Your task to perform on an android device: Open calendar and show me the fourth week of next month Image 0: 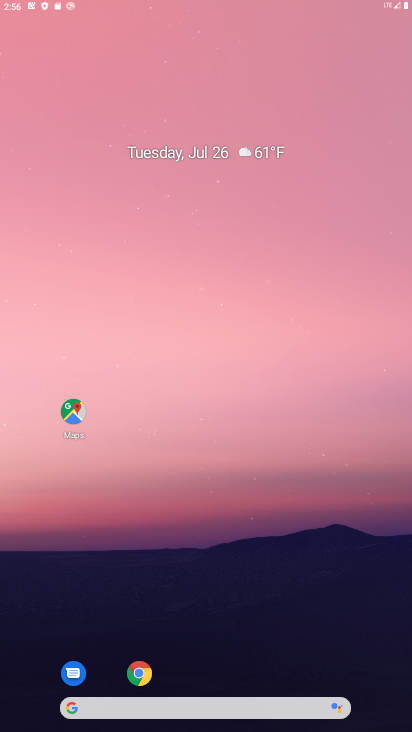
Step 0: click (230, 58)
Your task to perform on an android device: Open calendar and show me the fourth week of next month Image 1: 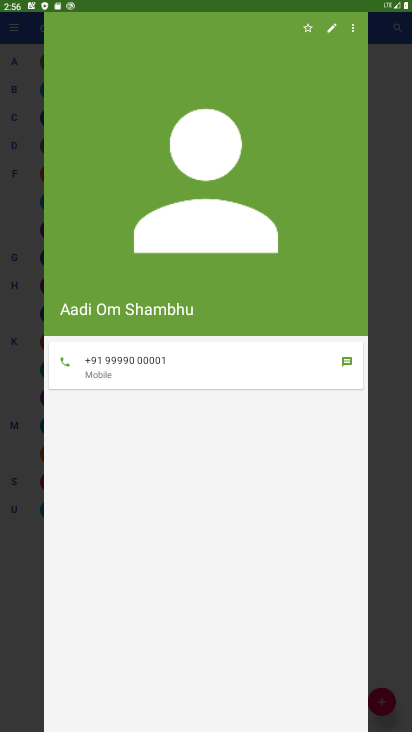
Step 1: press home button
Your task to perform on an android device: Open calendar and show me the fourth week of next month Image 2: 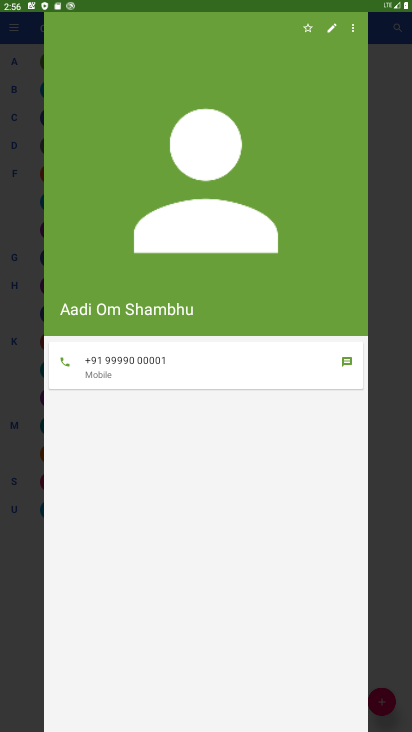
Step 2: press home button
Your task to perform on an android device: Open calendar and show me the fourth week of next month Image 3: 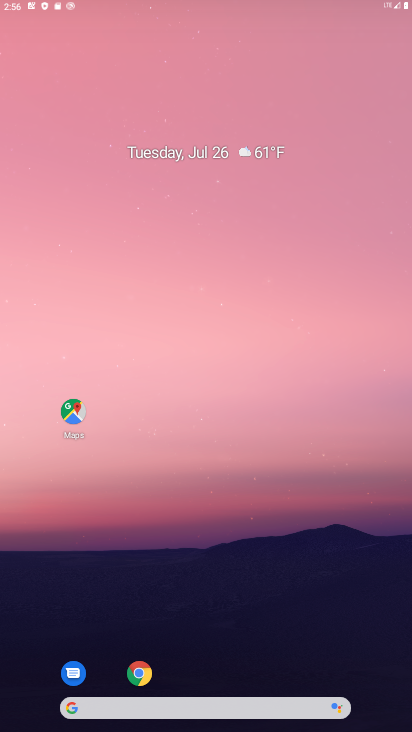
Step 3: drag from (187, 651) to (176, 139)
Your task to perform on an android device: Open calendar and show me the fourth week of next month Image 4: 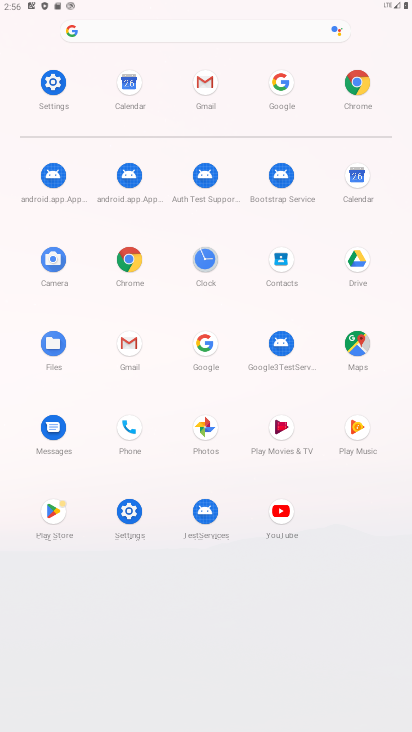
Step 4: click (354, 171)
Your task to perform on an android device: Open calendar and show me the fourth week of next month Image 5: 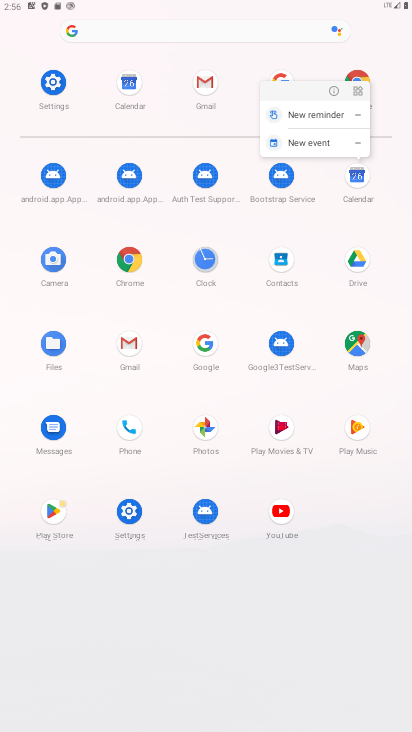
Step 5: click (335, 93)
Your task to perform on an android device: Open calendar and show me the fourth week of next month Image 6: 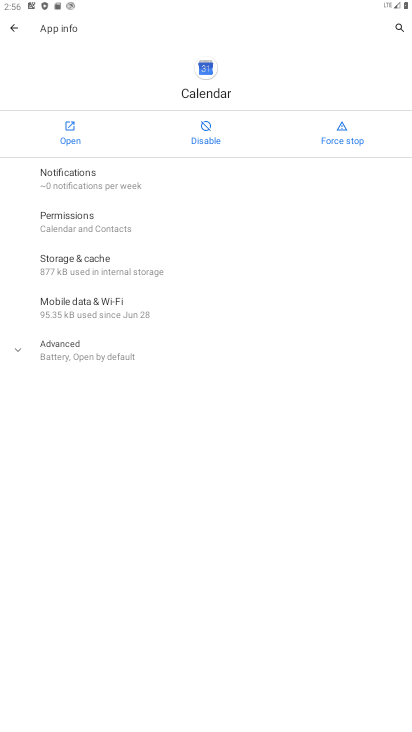
Step 6: click (73, 140)
Your task to perform on an android device: Open calendar and show me the fourth week of next month Image 7: 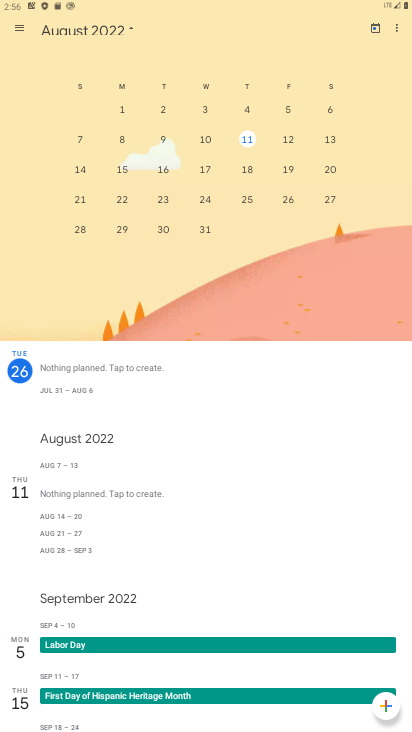
Step 7: drag from (80, 175) to (410, 169)
Your task to perform on an android device: Open calendar and show me the fourth week of next month Image 8: 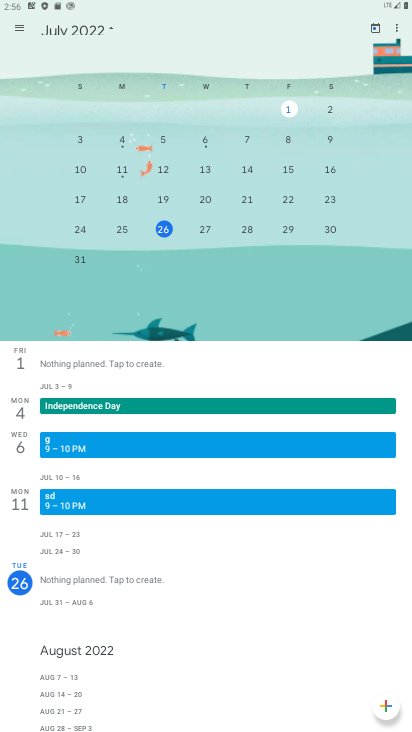
Step 8: drag from (332, 197) to (6, 258)
Your task to perform on an android device: Open calendar and show me the fourth week of next month Image 9: 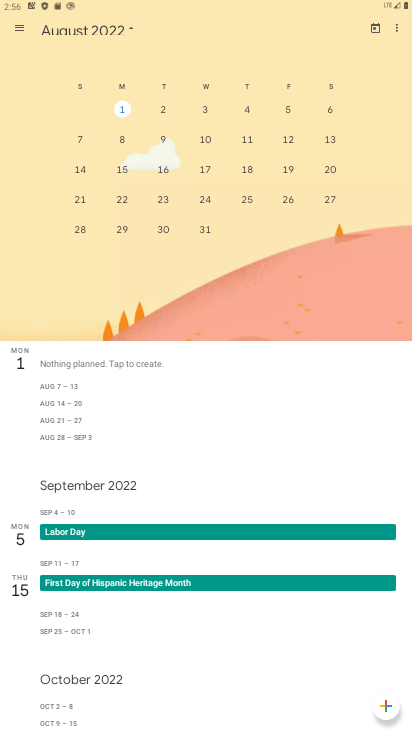
Step 9: click (253, 202)
Your task to perform on an android device: Open calendar and show me the fourth week of next month Image 10: 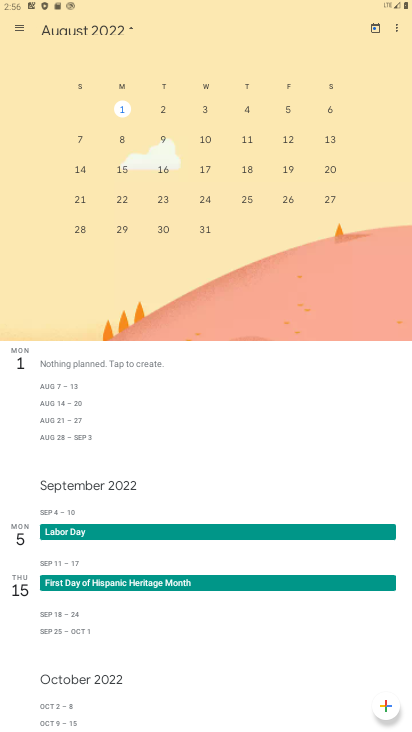
Step 10: click (245, 199)
Your task to perform on an android device: Open calendar and show me the fourth week of next month Image 11: 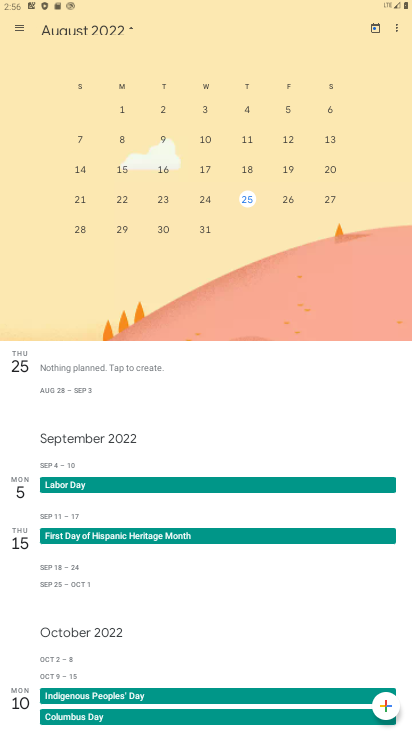
Step 11: task complete